Your task to perform on an android device: Open Yahoo.com Image 0: 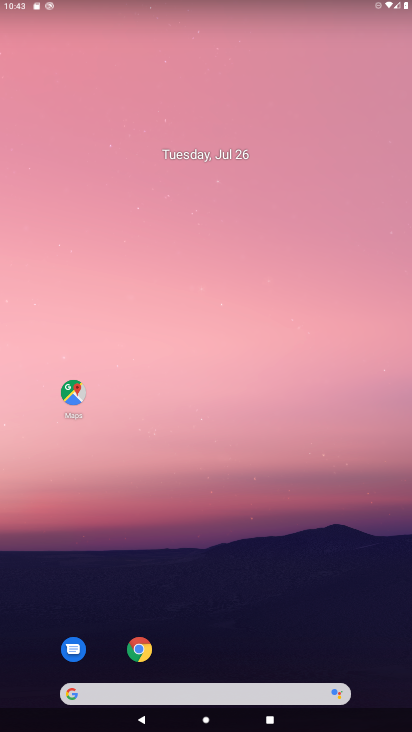
Step 0: click (137, 651)
Your task to perform on an android device: Open Yahoo.com Image 1: 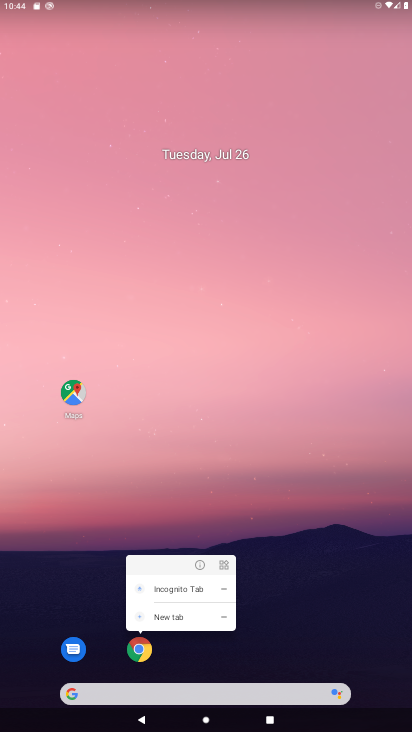
Step 1: click (137, 651)
Your task to perform on an android device: Open Yahoo.com Image 2: 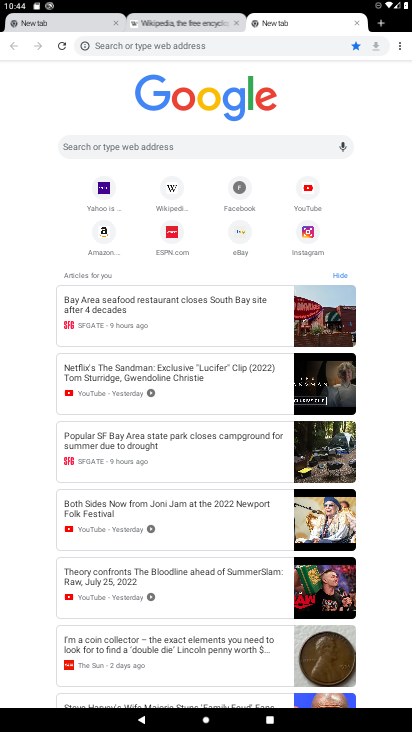
Step 2: click (99, 186)
Your task to perform on an android device: Open Yahoo.com Image 3: 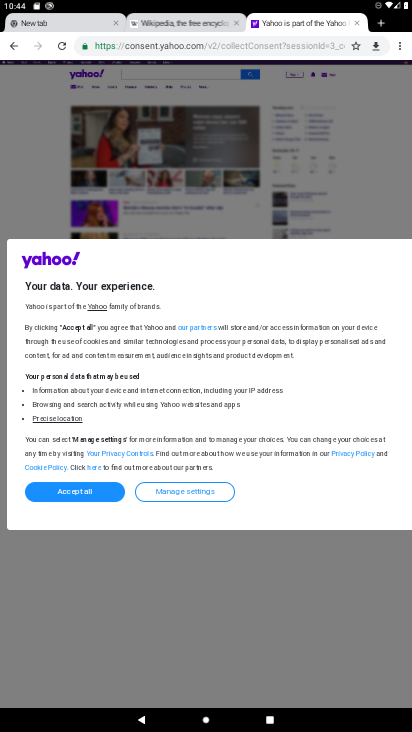
Step 3: task complete